Your task to perform on an android device: turn off airplane mode Image 0: 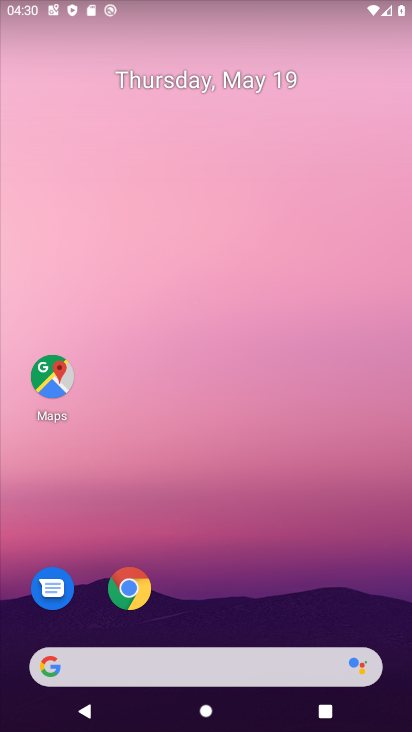
Step 0: drag from (205, 622) to (243, 1)
Your task to perform on an android device: turn off airplane mode Image 1: 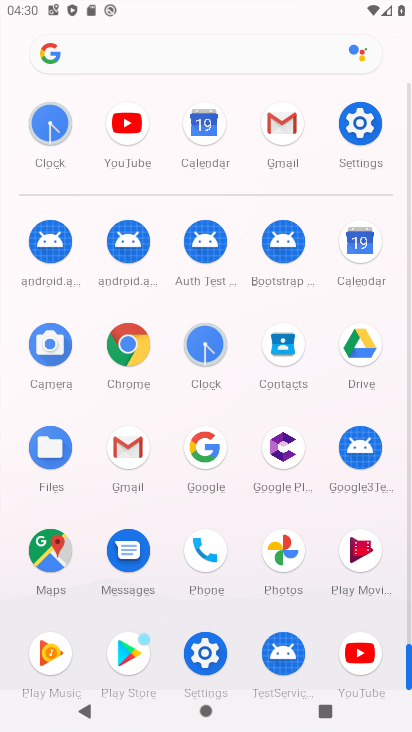
Step 1: click (367, 139)
Your task to perform on an android device: turn off airplane mode Image 2: 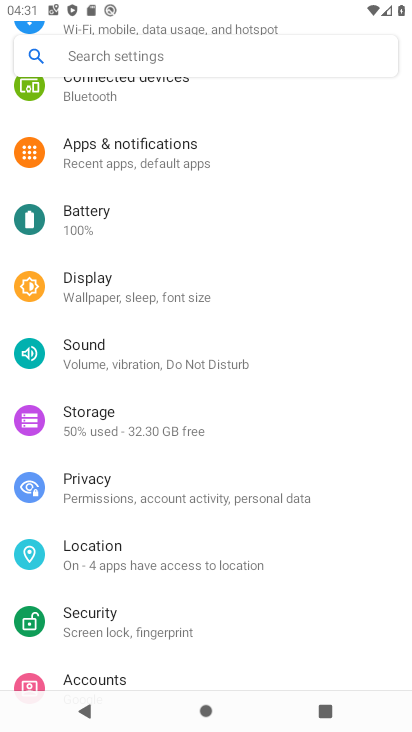
Step 2: drag from (165, 182) to (164, 443)
Your task to perform on an android device: turn off airplane mode Image 3: 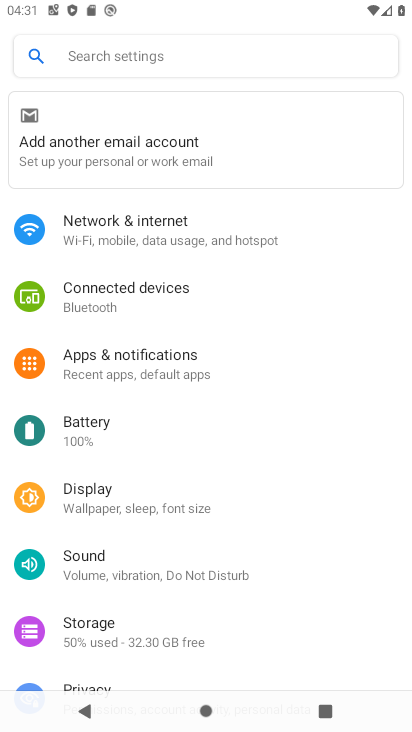
Step 3: click (169, 235)
Your task to perform on an android device: turn off airplane mode Image 4: 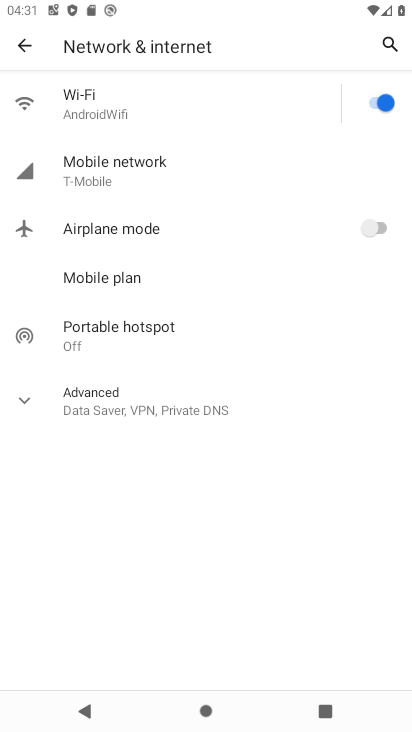
Step 4: click (172, 231)
Your task to perform on an android device: turn off airplane mode Image 5: 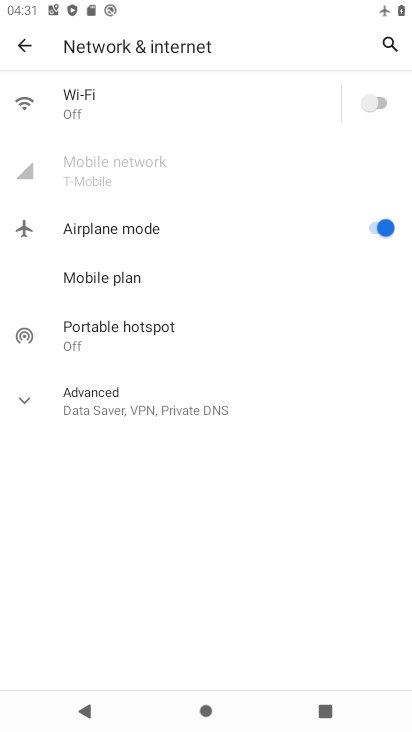
Step 5: task complete